Your task to perform on an android device: Find coffee shops on Maps Image 0: 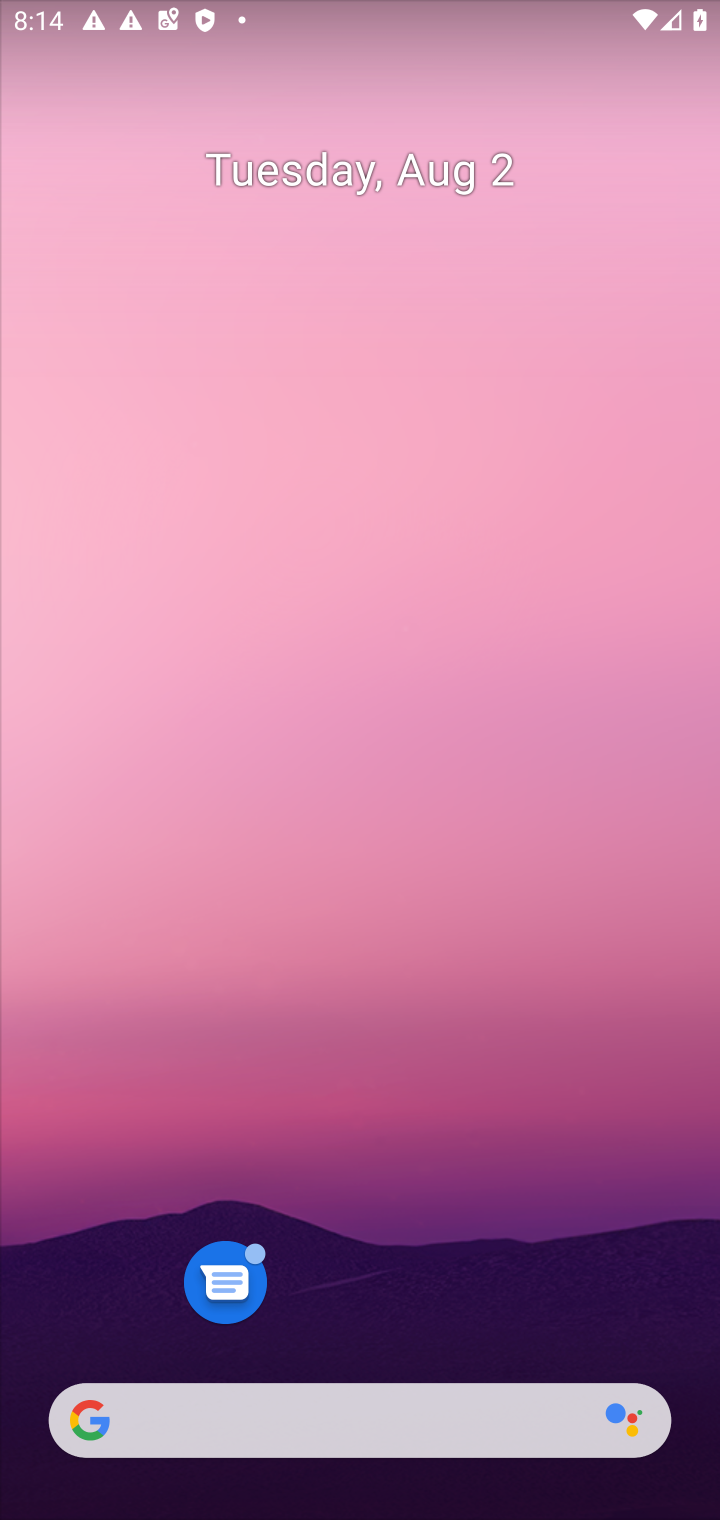
Step 0: drag from (349, 1368) to (312, 327)
Your task to perform on an android device: Find coffee shops on Maps Image 1: 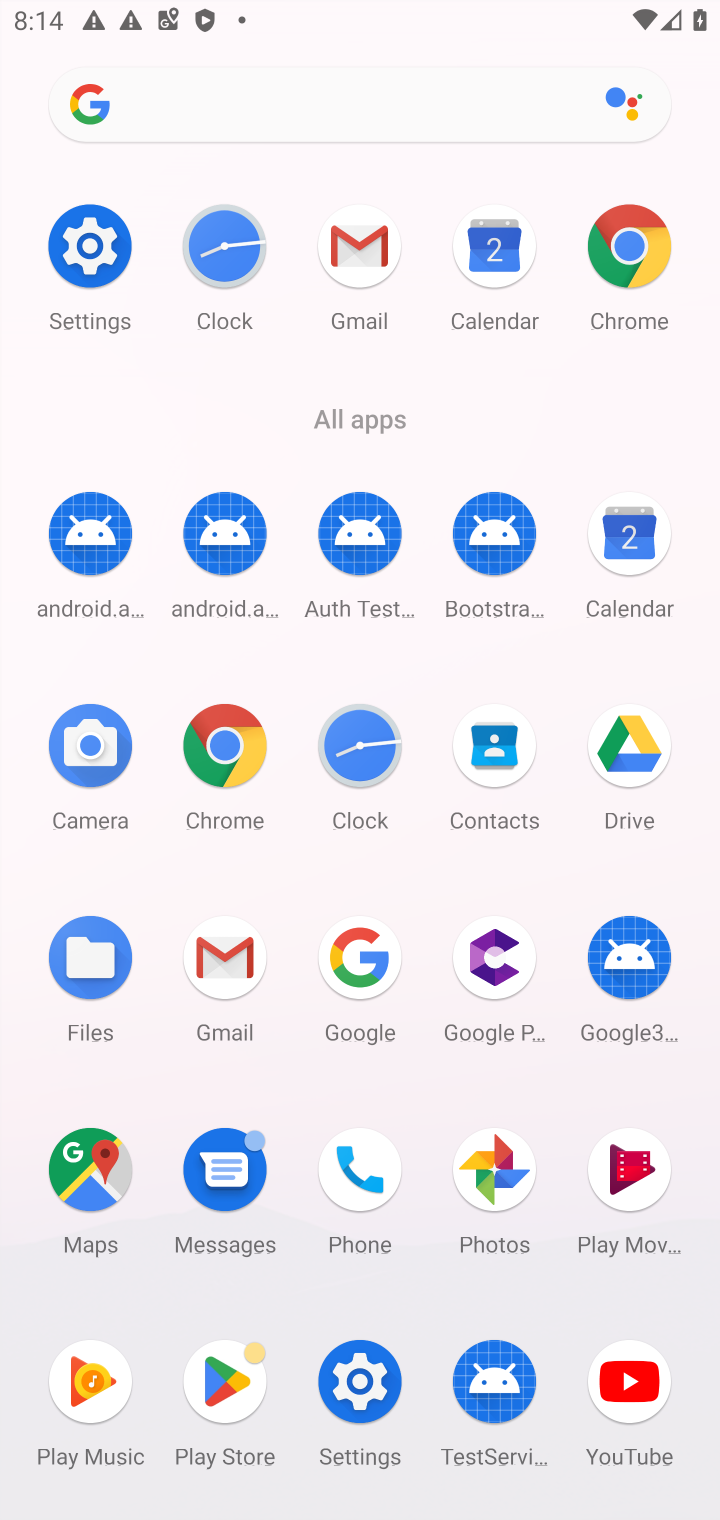
Step 1: click (90, 1181)
Your task to perform on an android device: Find coffee shops on Maps Image 2: 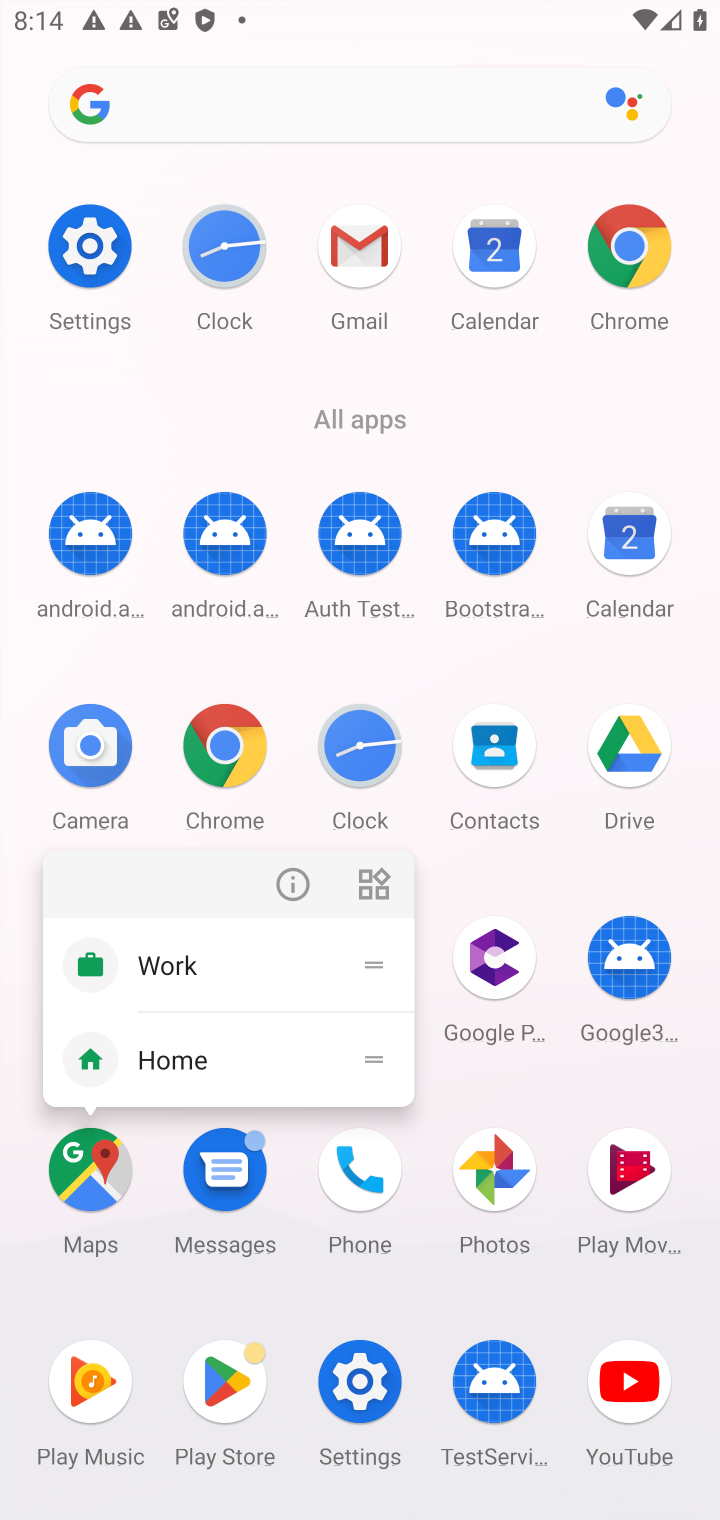
Step 2: click (74, 1205)
Your task to perform on an android device: Find coffee shops on Maps Image 3: 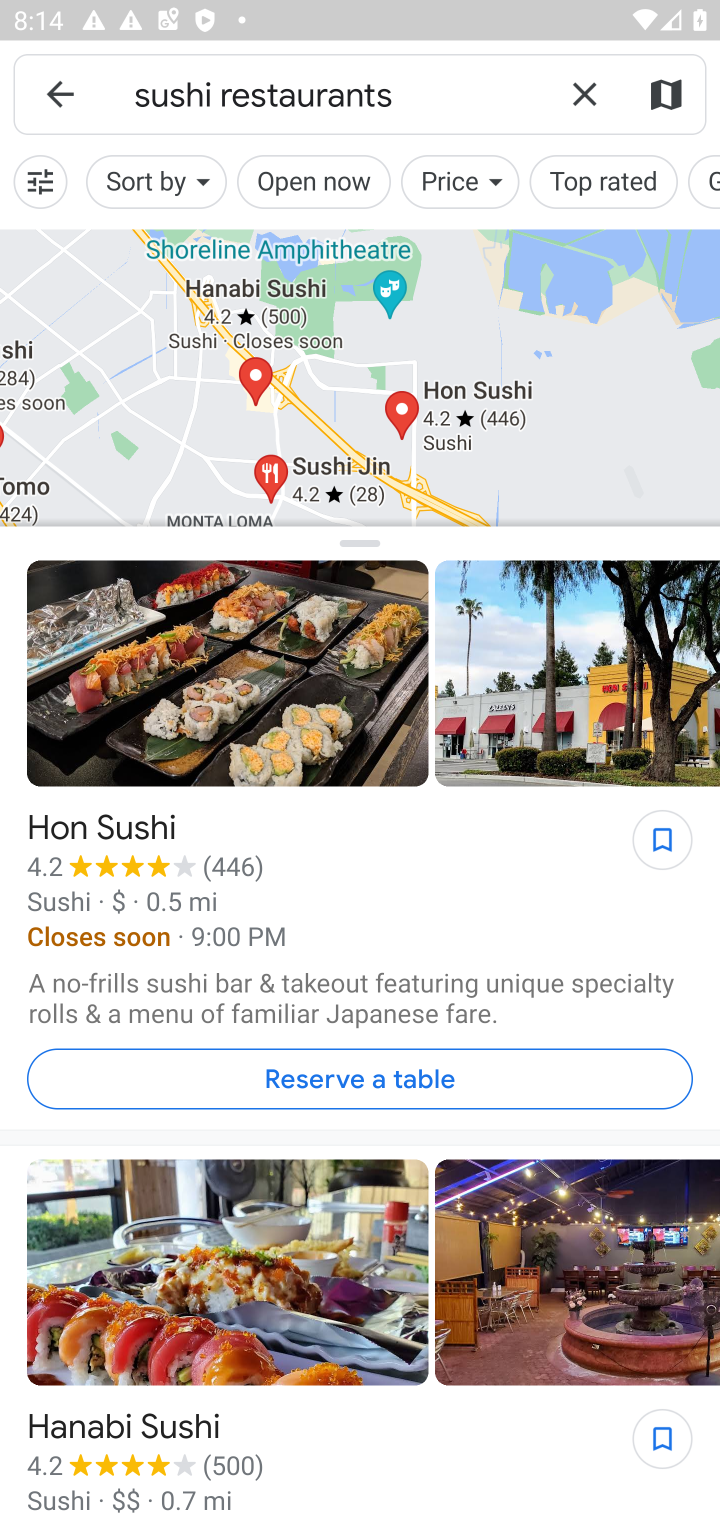
Step 3: click (66, 100)
Your task to perform on an android device: Find coffee shops on Maps Image 4: 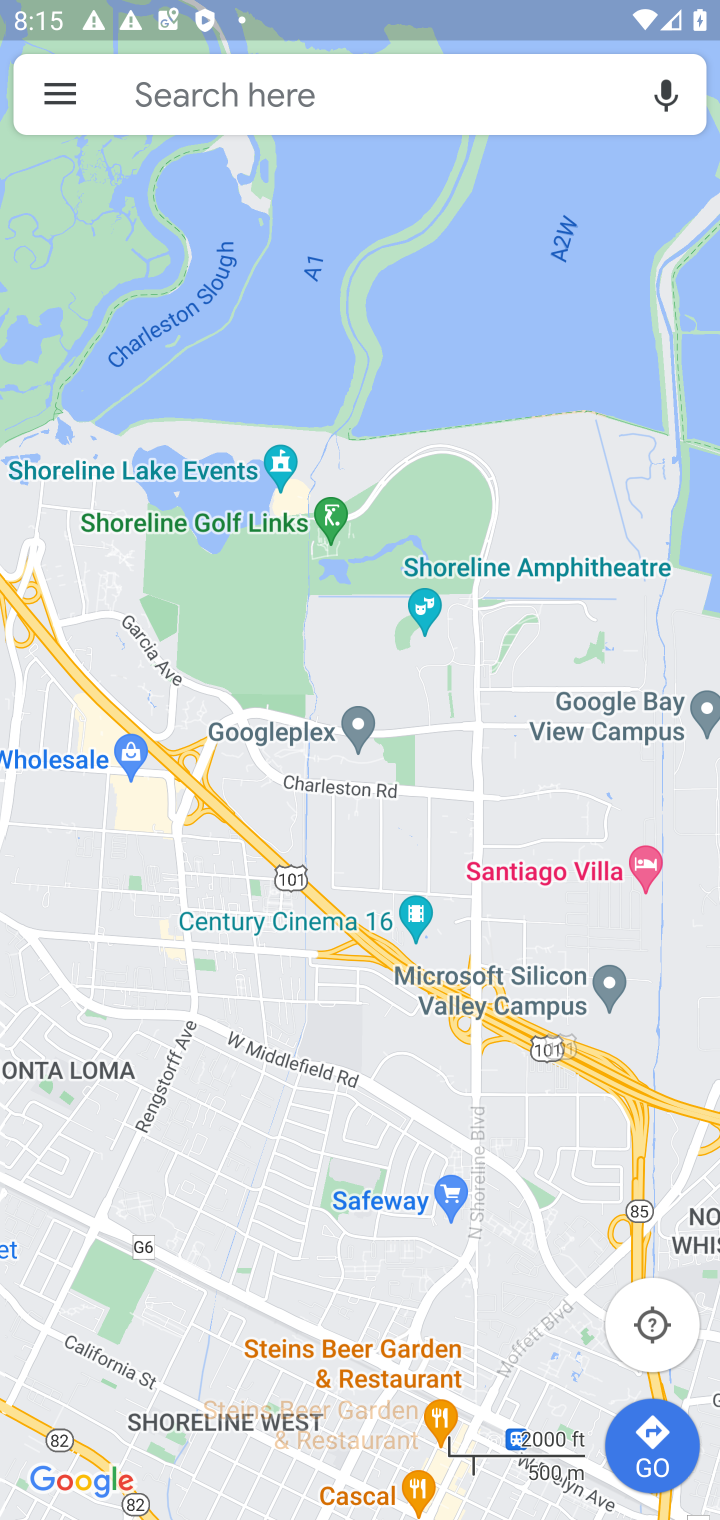
Step 4: click (233, 98)
Your task to perform on an android device: Find coffee shops on Maps Image 5: 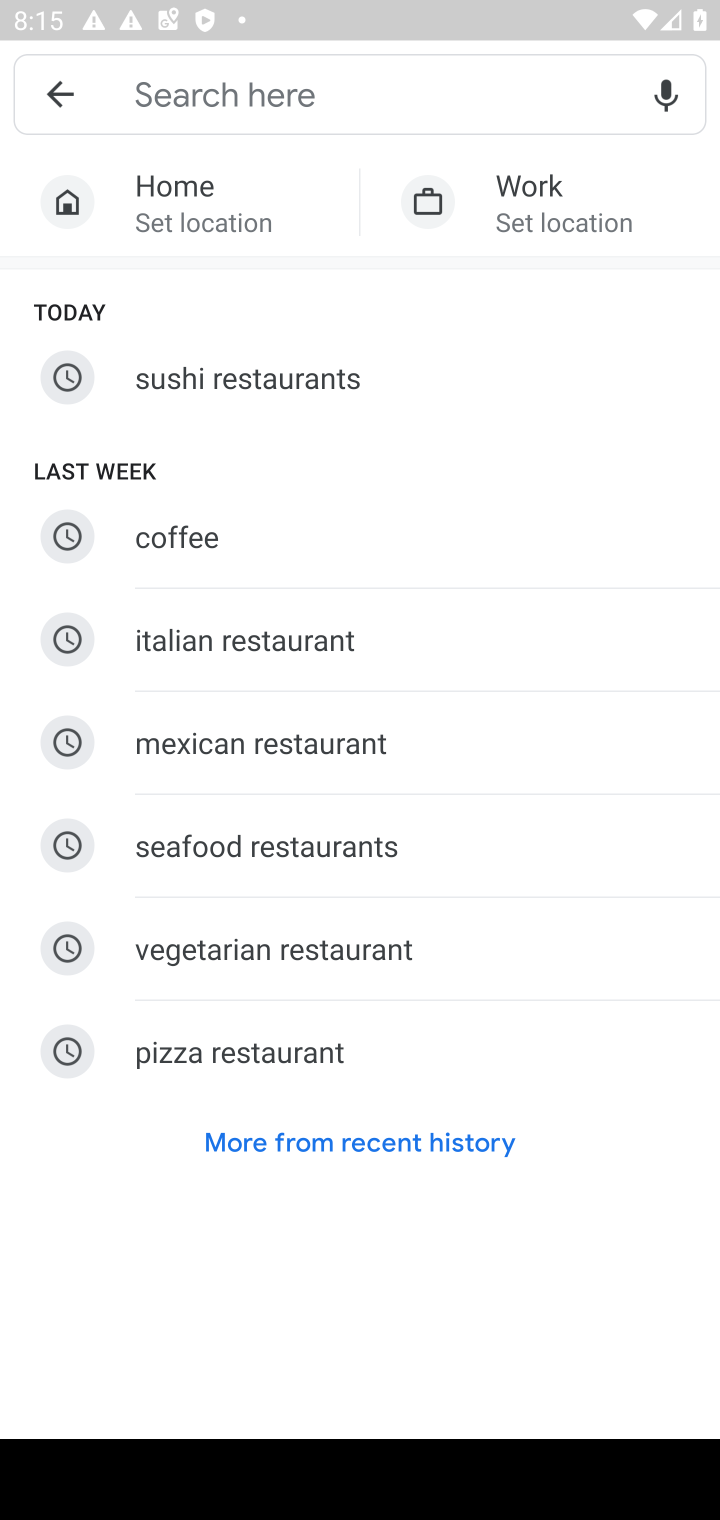
Step 5: click (197, 554)
Your task to perform on an android device: Find coffee shops on Maps Image 6: 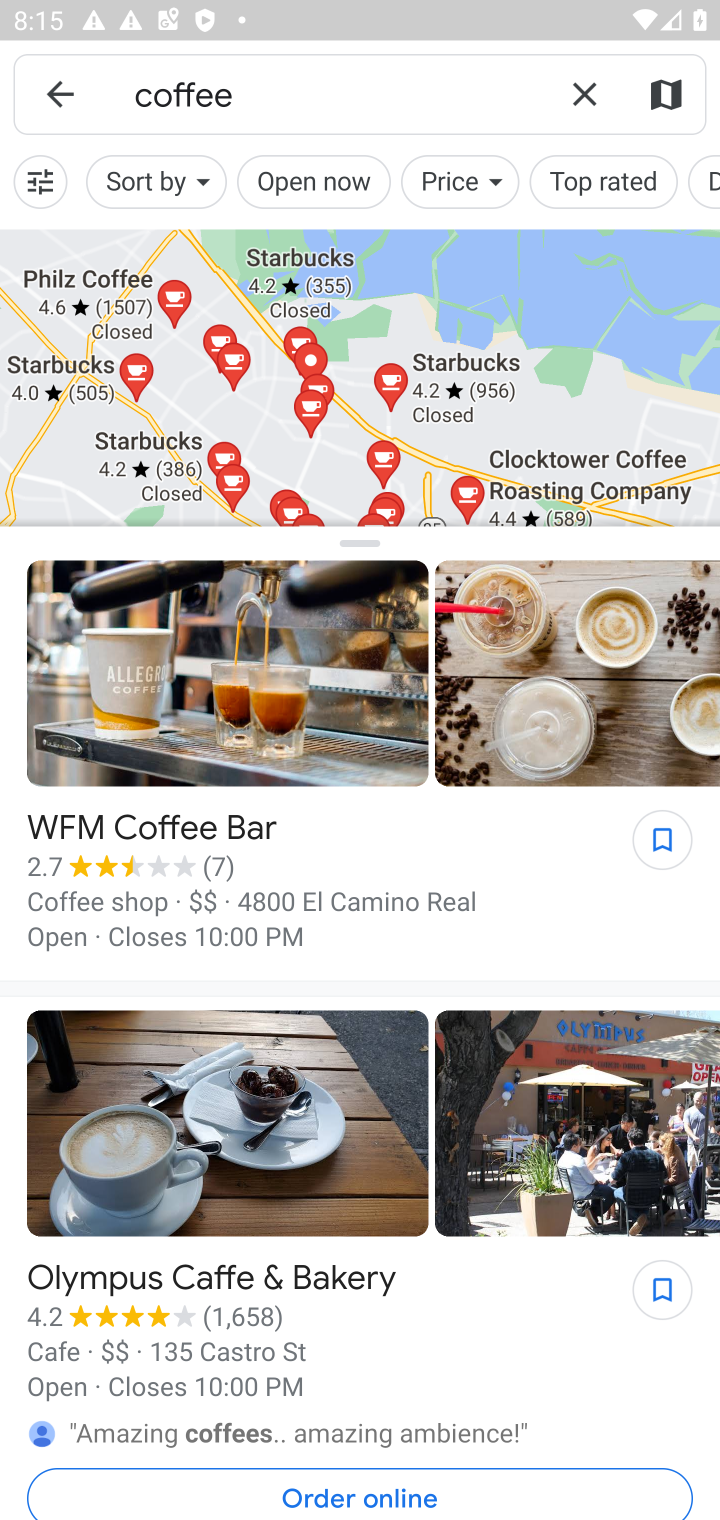
Step 6: task complete